Your task to perform on an android device: What's the weather going to be this weekend? Image 0: 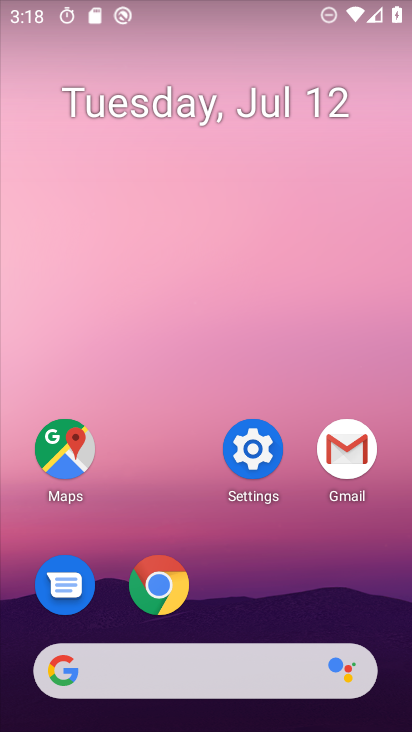
Step 0: drag from (4, 236) to (412, 220)
Your task to perform on an android device: What's the weather going to be this weekend? Image 1: 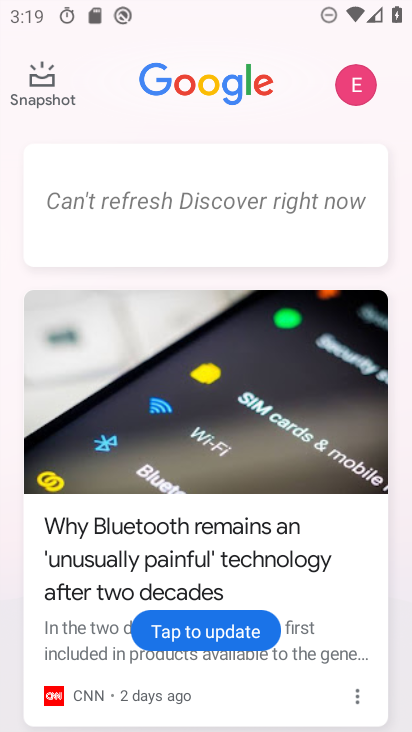
Step 1: task complete